Your task to perform on an android device: Open calendar and show me the second week of next month Image 0: 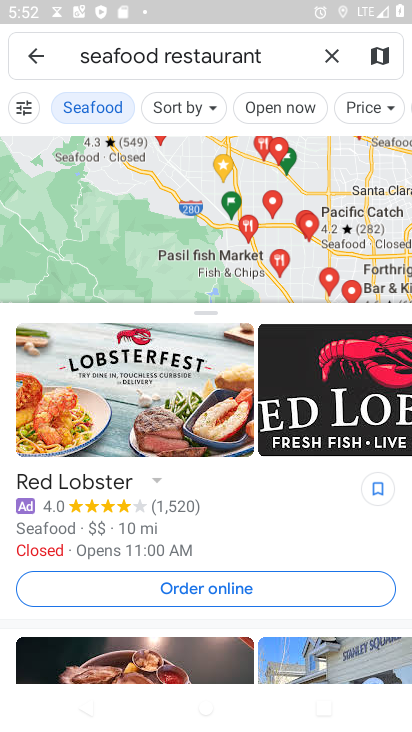
Step 0: press home button
Your task to perform on an android device: Open calendar and show me the second week of next month Image 1: 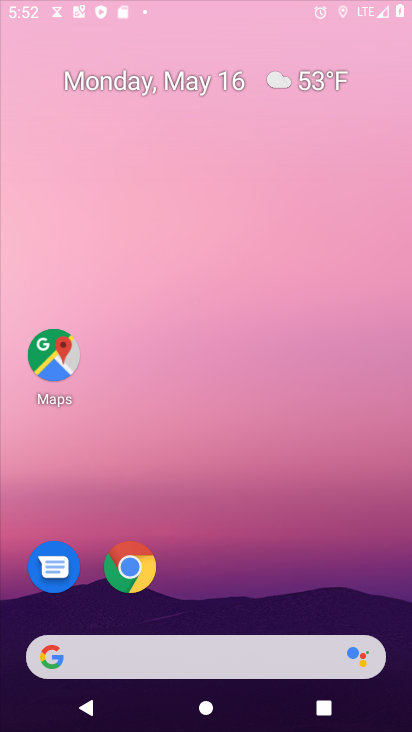
Step 1: drag from (346, 576) to (330, 25)
Your task to perform on an android device: Open calendar and show me the second week of next month Image 2: 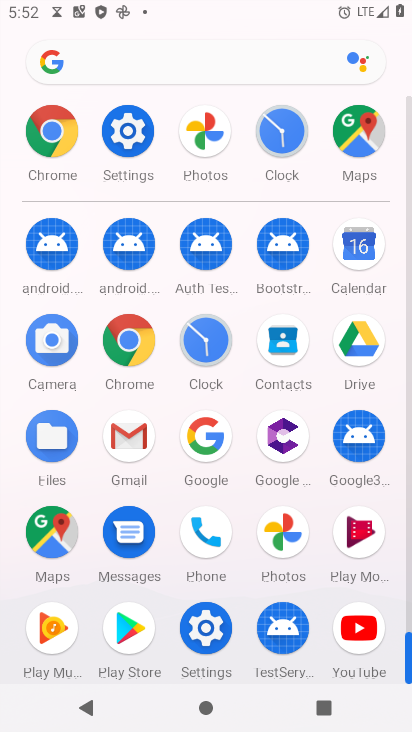
Step 2: click (355, 273)
Your task to perform on an android device: Open calendar and show me the second week of next month Image 3: 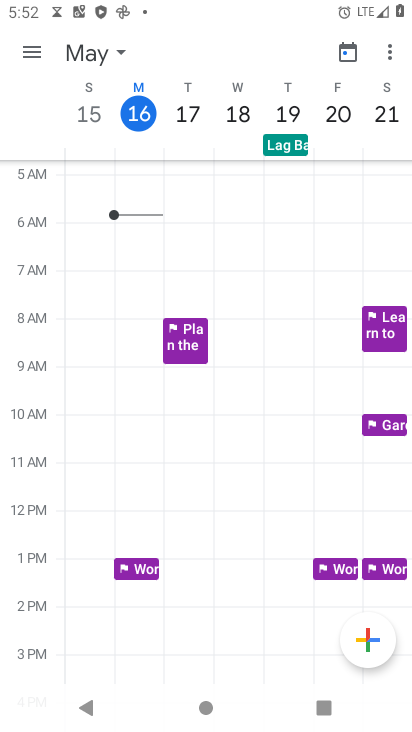
Step 3: click (111, 40)
Your task to perform on an android device: Open calendar and show me the second week of next month Image 4: 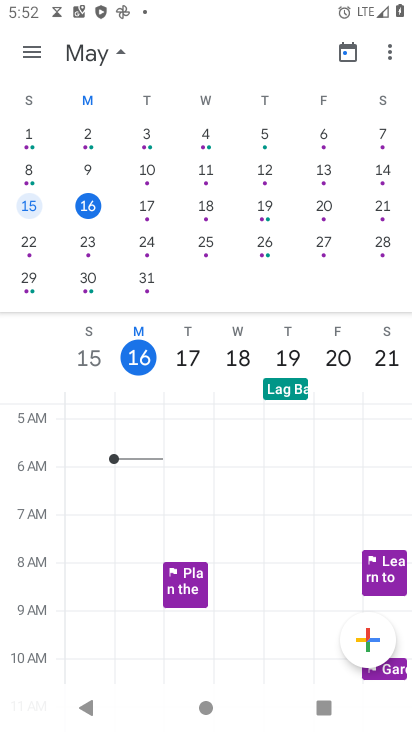
Step 4: drag from (376, 228) to (16, 179)
Your task to perform on an android device: Open calendar and show me the second week of next month Image 5: 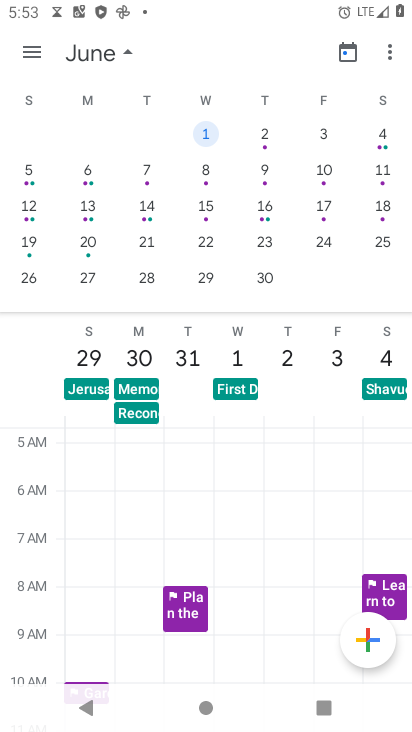
Step 5: click (258, 170)
Your task to perform on an android device: Open calendar and show me the second week of next month Image 6: 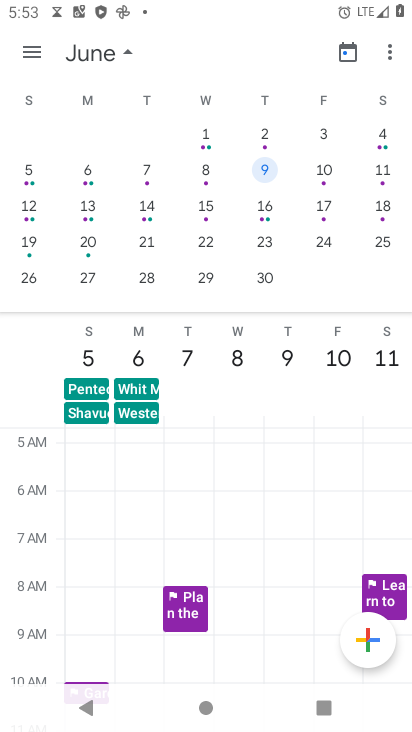
Step 6: task complete